Your task to perform on an android device: toggle data saver in the chrome app Image 0: 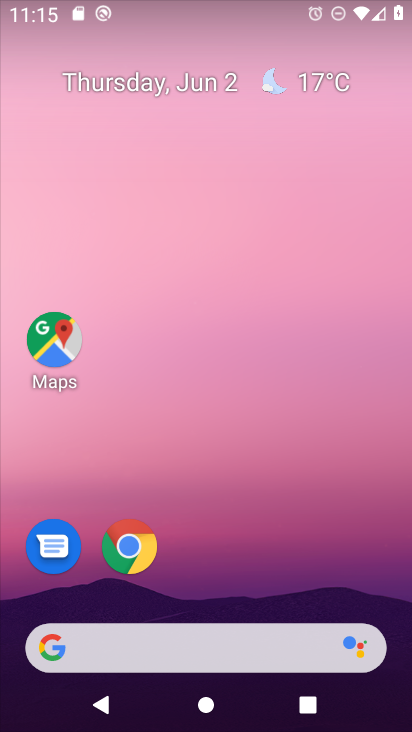
Step 0: drag from (284, 460) to (252, 20)
Your task to perform on an android device: toggle data saver in the chrome app Image 1: 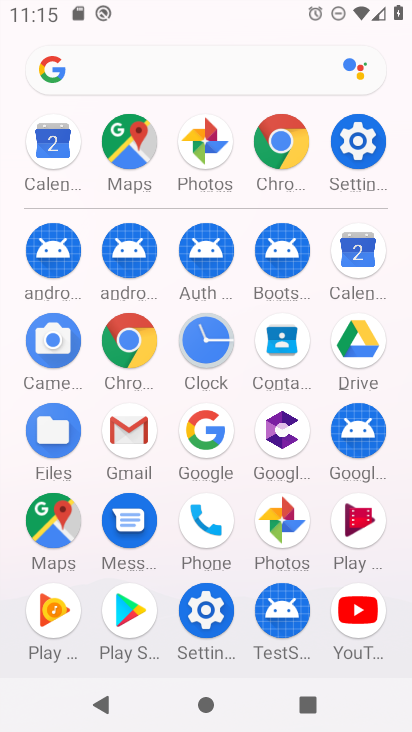
Step 1: drag from (15, 409) to (19, 242)
Your task to perform on an android device: toggle data saver in the chrome app Image 2: 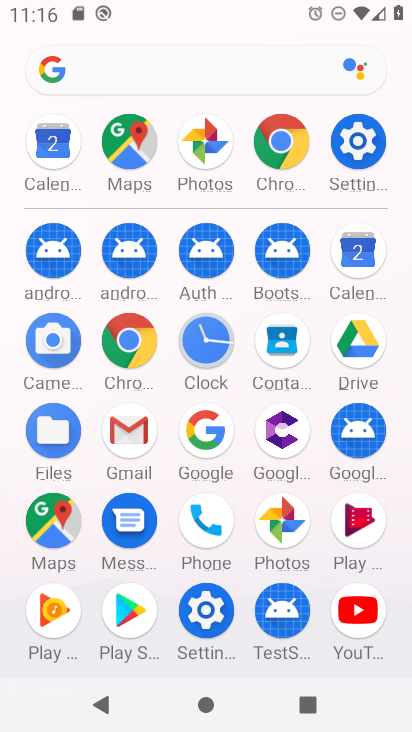
Step 2: click (127, 334)
Your task to perform on an android device: toggle data saver in the chrome app Image 3: 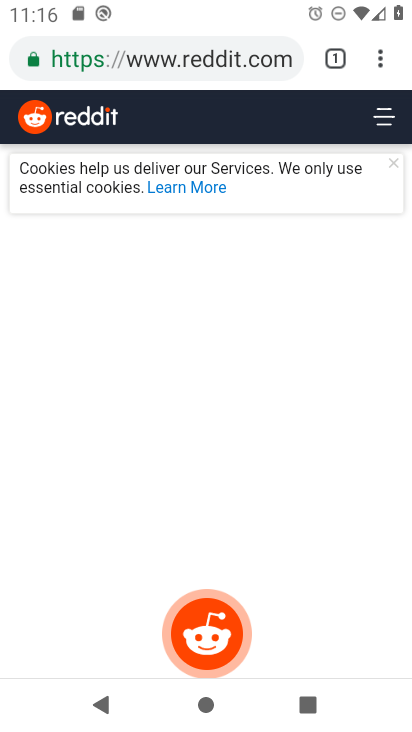
Step 3: drag from (380, 60) to (199, 565)
Your task to perform on an android device: toggle data saver in the chrome app Image 4: 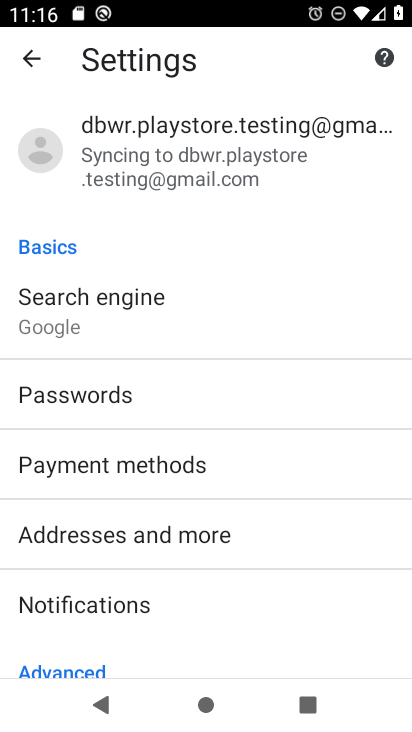
Step 4: drag from (251, 628) to (284, 128)
Your task to perform on an android device: toggle data saver in the chrome app Image 5: 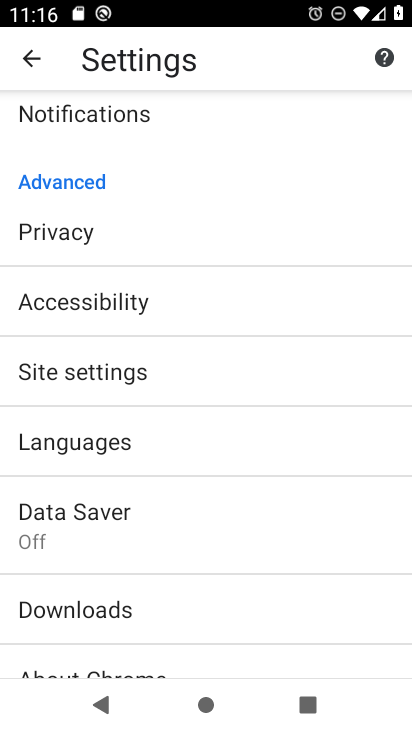
Step 5: drag from (203, 563) to (231, 237)
Your task to perform on an android device: toggle data saver in the chrome app Image 6: 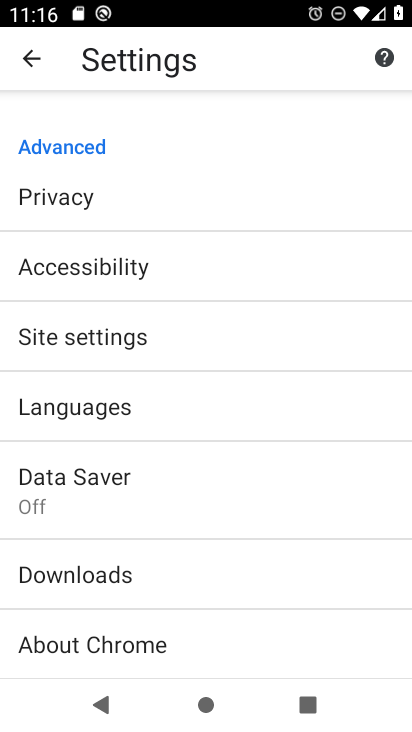
Step 6: click (118, 498)
Your task to perform on an android device: toggle data saver in the chrome app Image 7: 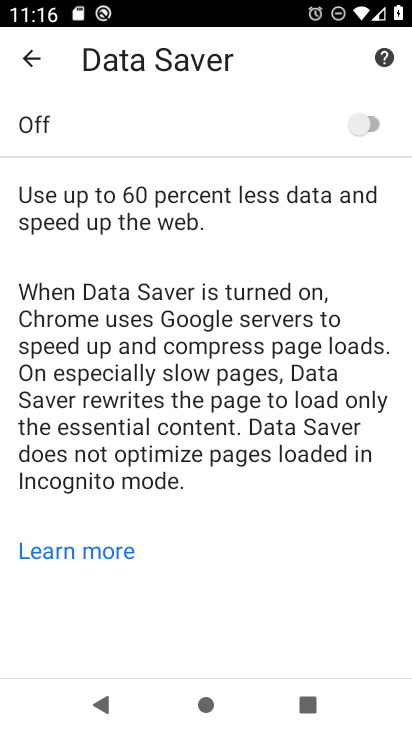
Step 7: click (351, 110)
Your task to perform on an android device: toggle data saver in the chrome app Image 8: 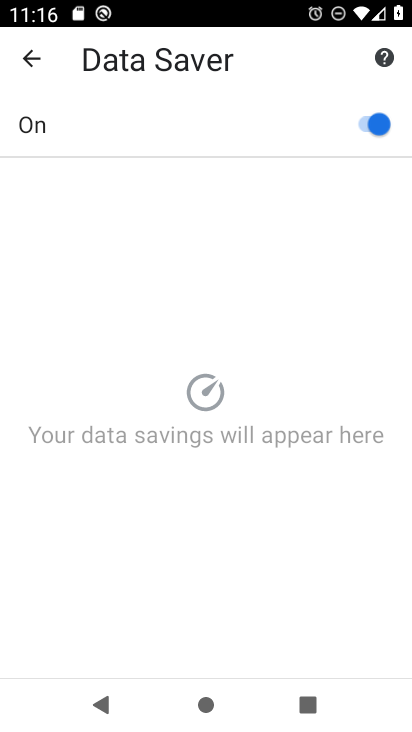
Step 8: task complete